Your task to perform on an android device: add a contact Image 0: 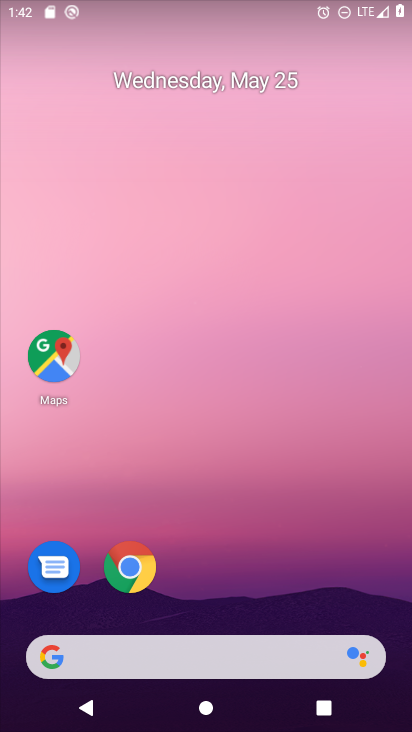
Step 0: drag from (403, 701) to (398, 176)
Your task to perform on an android device: add a contact Image 1: 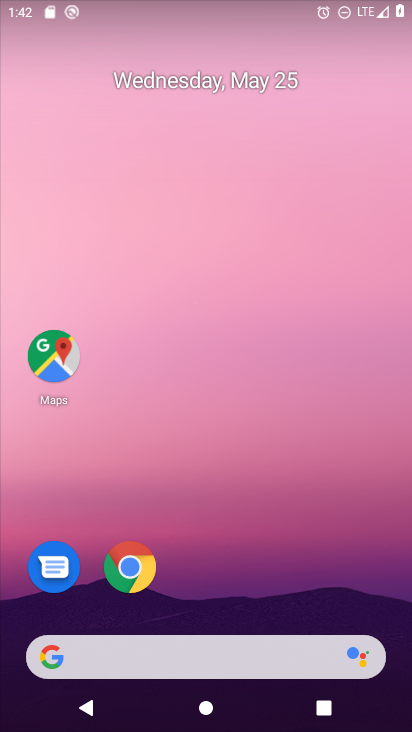
Step 1: drag from (403, 712) to (392, 248)
Your task to perform on an android device: add a contact Image 2: 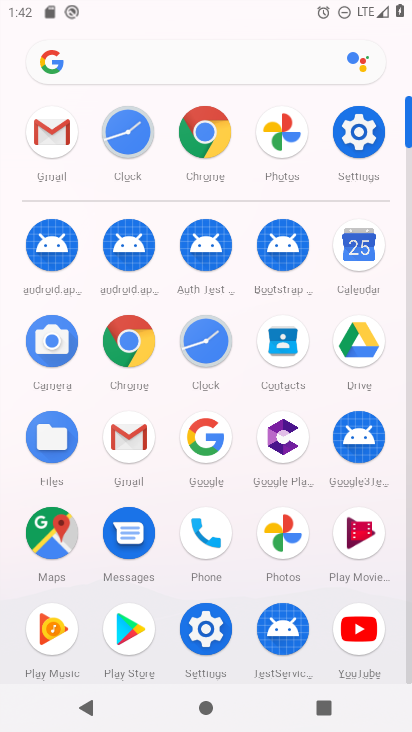
Step 2: click (280, 340)
Your task to perform on an android device: add a contact Image 3: 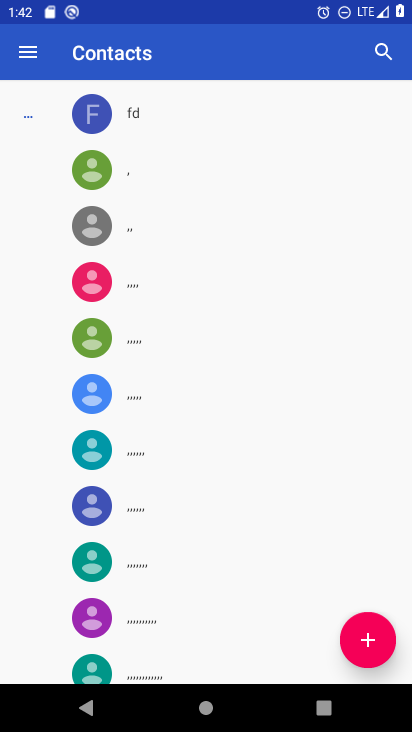
Step 3: click (364, 629)
Your task to perform on an android device: add a contact Image 4: 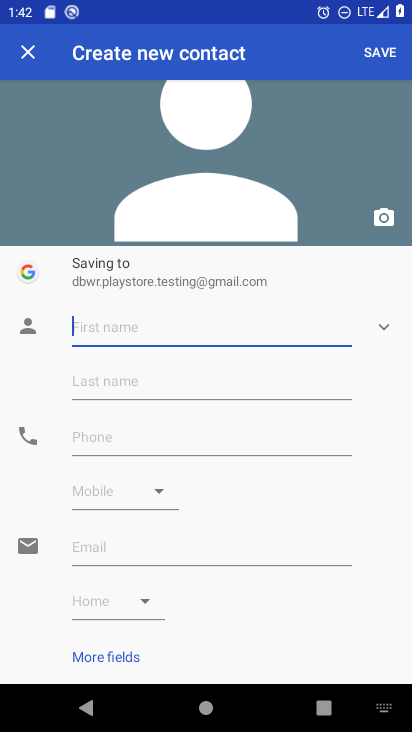
Step 4: type "gfgfgjhhj"
Your task to perform on an android device: add a contact Image 5: 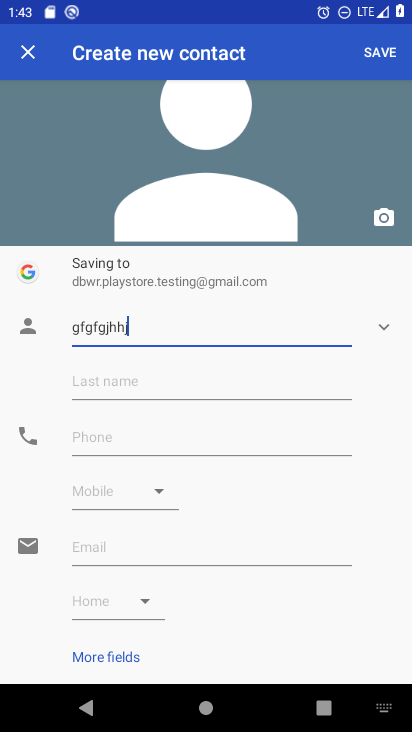
Step 5: click (136, 380)
Your task to perform on an android device: add a contact Image 6: 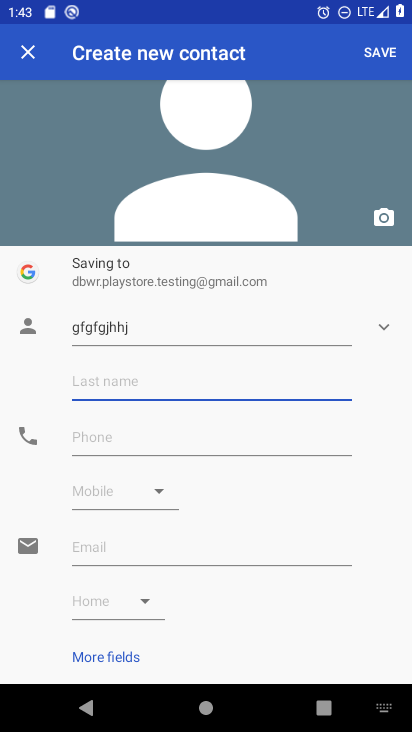
Step 6: type "gcvbfbfh"
Your task to perform on an android device: add a contact Image 7: 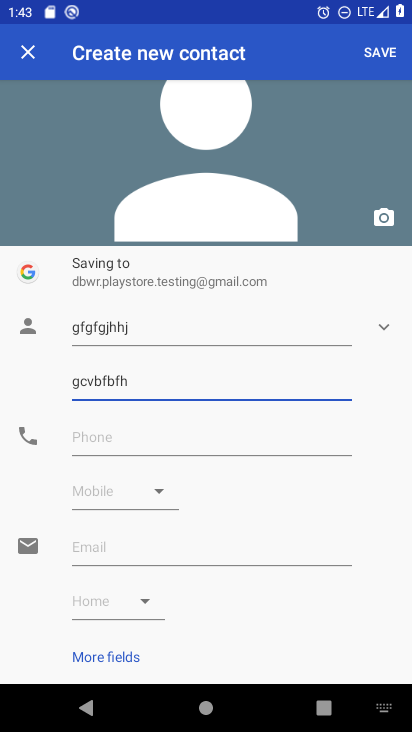
Step 7: click (176, 444)
Your task to perform on an android device: add a contact Image 8: 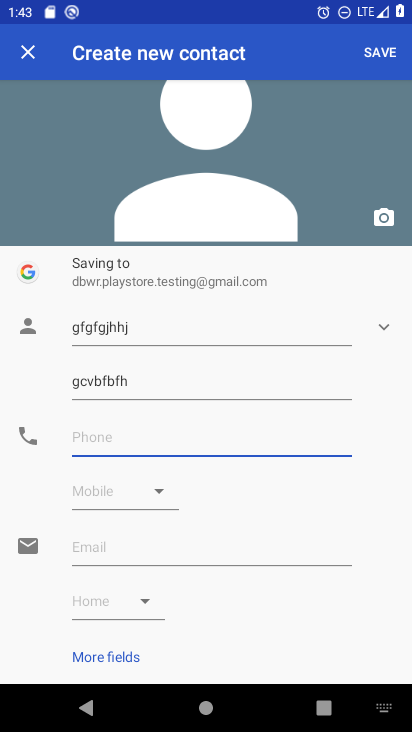
Step 8: type "65655566878"
Your task to perform on an android device: add a contact Image 9: 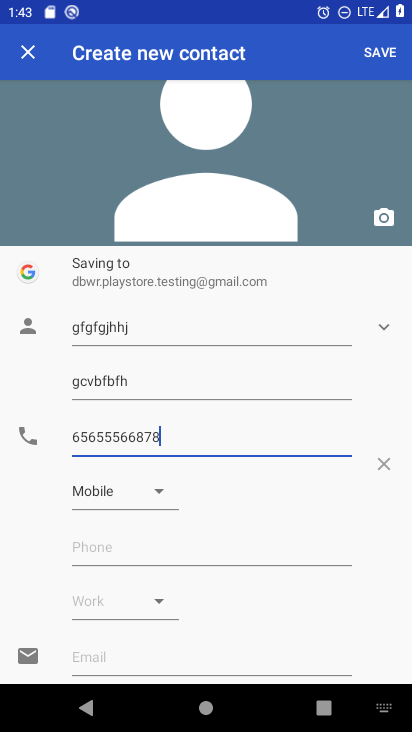
Step 9: click (376, 49)
Your task to perform on an android device: add a contact Image 10: 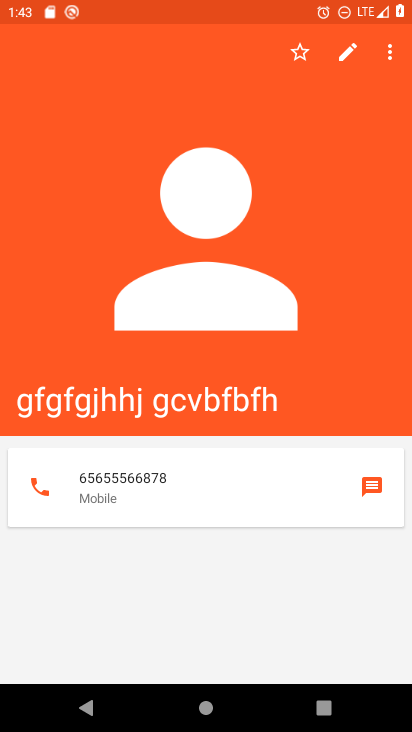
Step 10: task complete